Your task to perform on an android device: turn notification dots on Image 0: 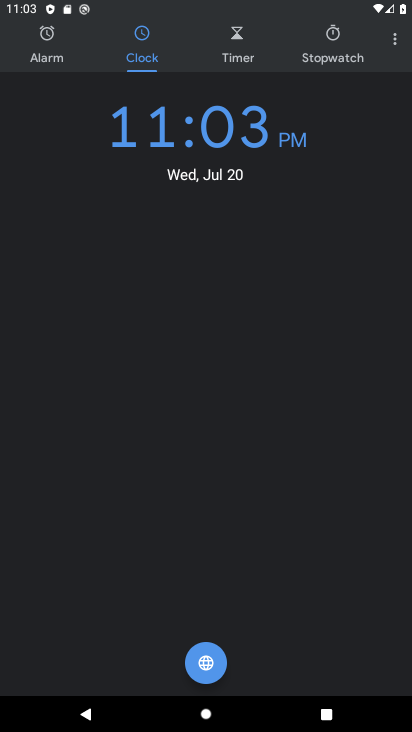
Step 0: press home button
Your task to perform on an android device: turn notification dots on Image 1: 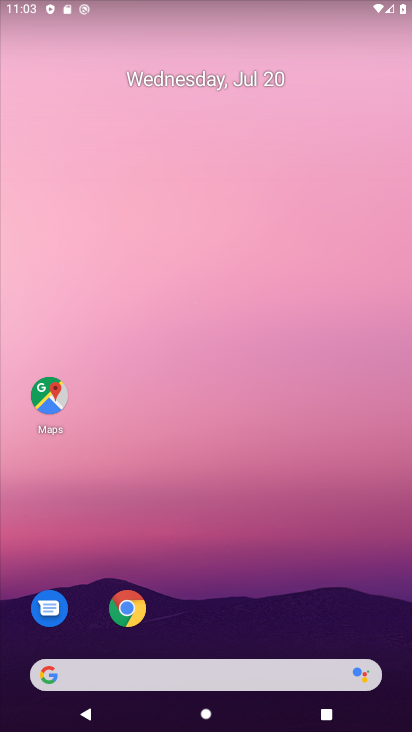
Step 1: drag from (316, 611) to (350, 106)
Your task to perform on an android device: turn notification dots on Image 2: 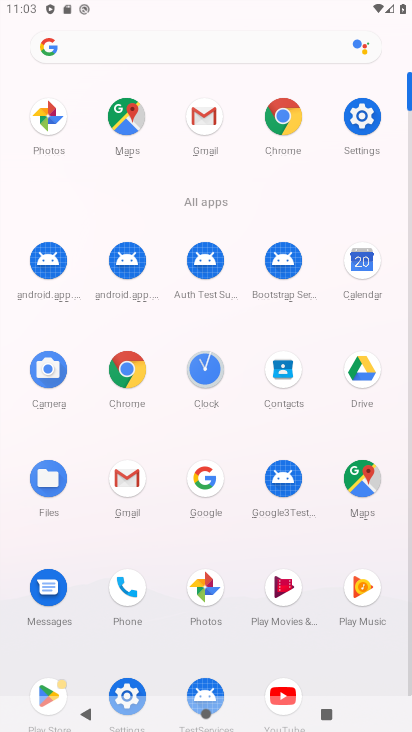
Step 2: click (364, 121)
Your task to perform on an android device: turn notification dots on Image 3: 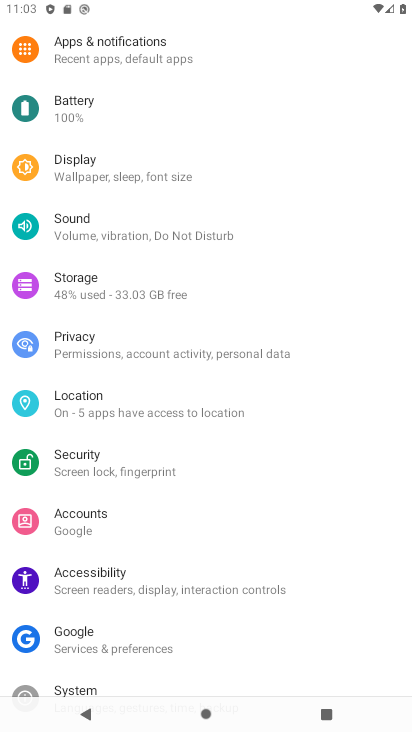
Step 3: drag from (356, 168) to (353, 383)
Your task to perform on an android device: turn notification dots on Image 4: 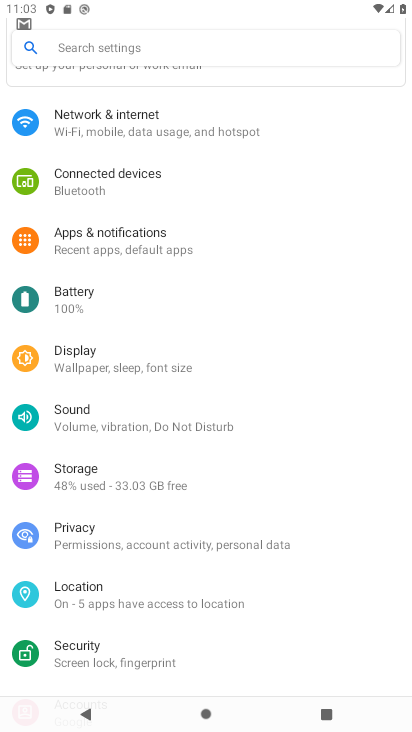
Step 4: drag from (346, 146) to (358, 358)
Your task to perform on an android device: turn notification dots on Image 5: 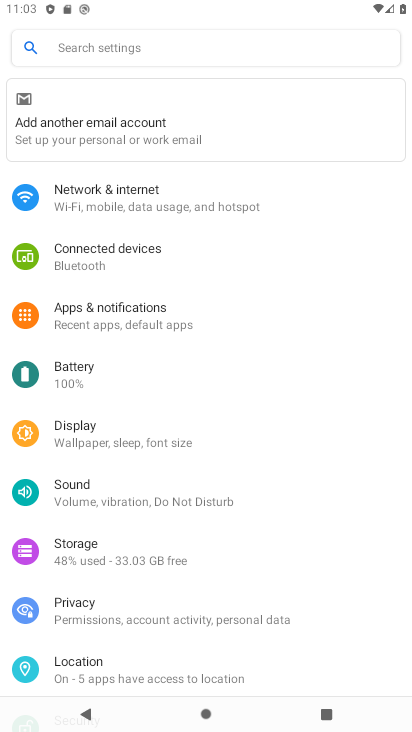
Step 5: drag from (319, 443) to (333, 338)
Your task to perform on an android device: turn notification dots on Image 6: 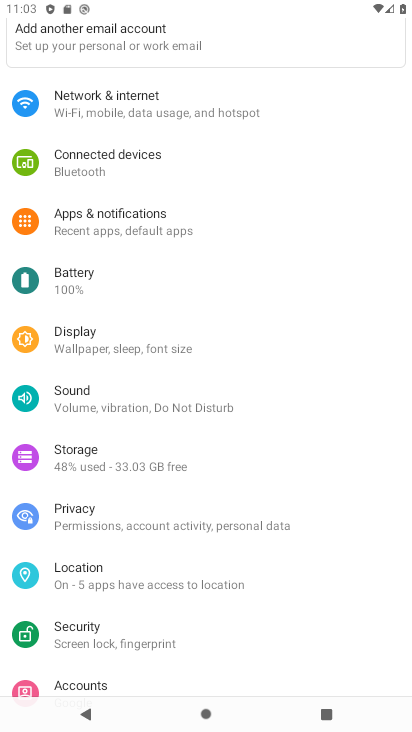
Step 6: drag from (335, 457) to (318, 344)
Your task to perform on an android device: turn notification dots on Image 7: 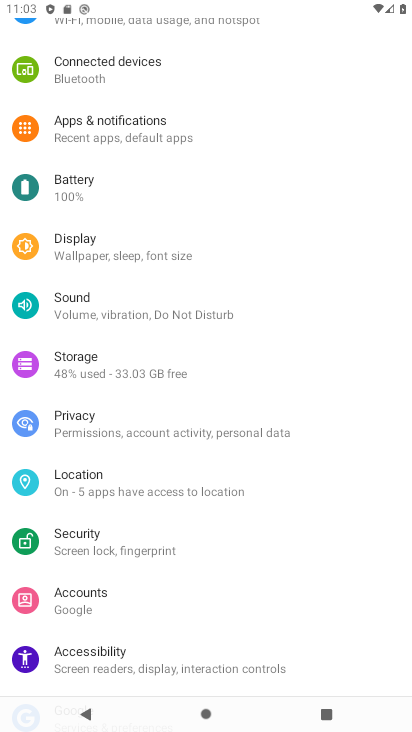
Step 7: drag from (328, 508) to (329, 362)
Your task to perform on an android device: turn notification dots on Image 8: 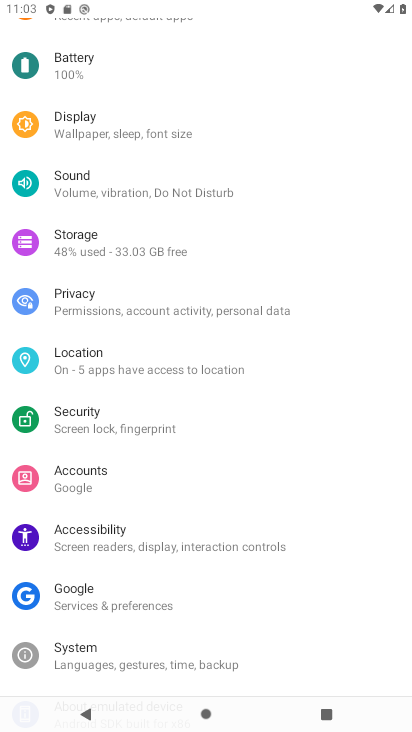
Step 8: drag from (339, 473) to (357, 330)
Your task to perform on an android device: turn notification dots on Image 9: 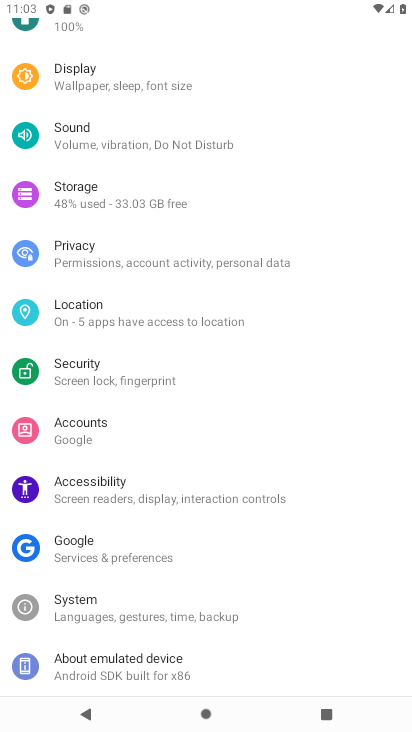
Step 9: drag from (353, 252) to (353, 353)
Your task to perform on an android device: turn notification dots on Image 10: 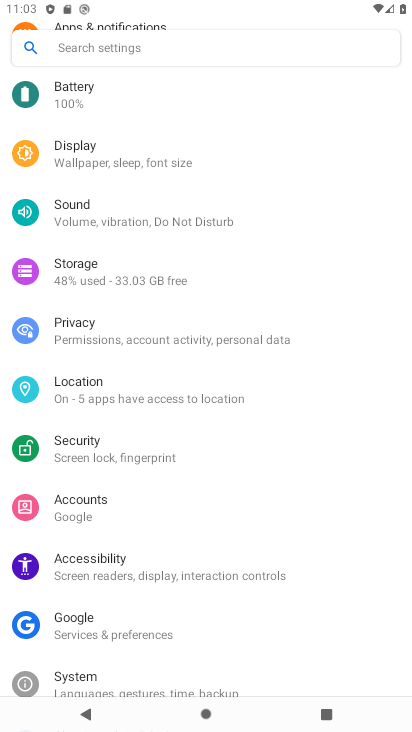
Step 10: drag from (352, 245) to (353, 362)
Your task to perform on an android device: turn notification dots on Image 11: 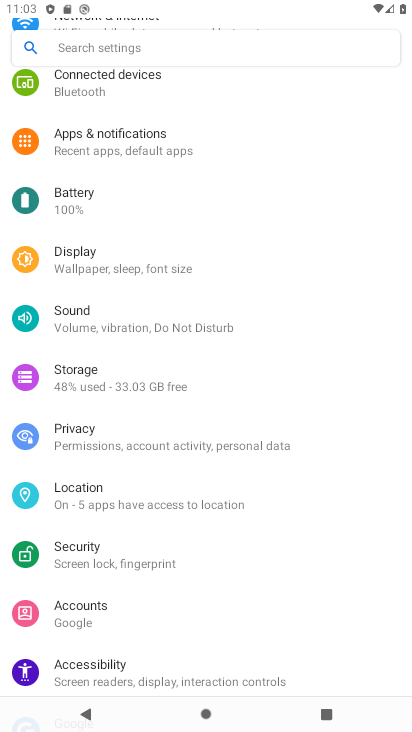
Step 11: drag from (340, 190) to (336, 397)
Your task to perform on an android device: turn notification dots on Image 12: 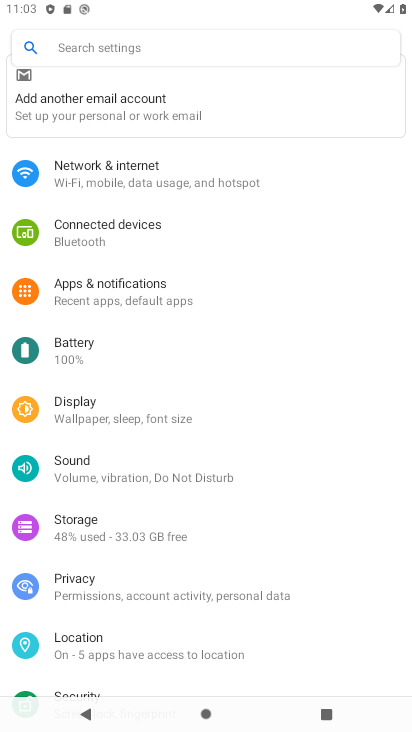
Step 12: click (210, 296)
Your task to perform on an android device: turn notification dots on Image 13: 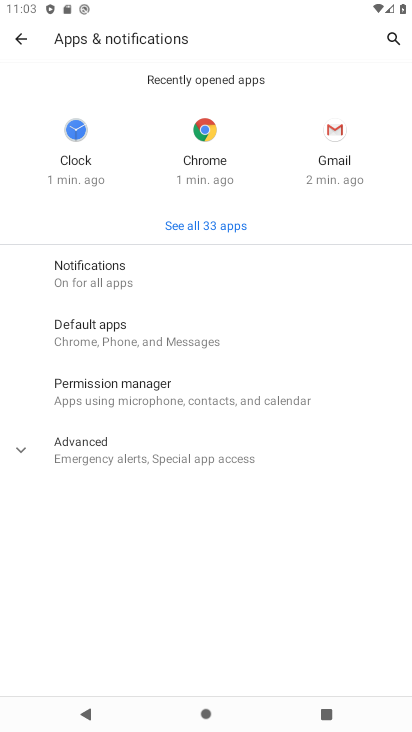
Step 13: click (127, 274)
Your task to perform on an android device: turn notification dots on Image 14: 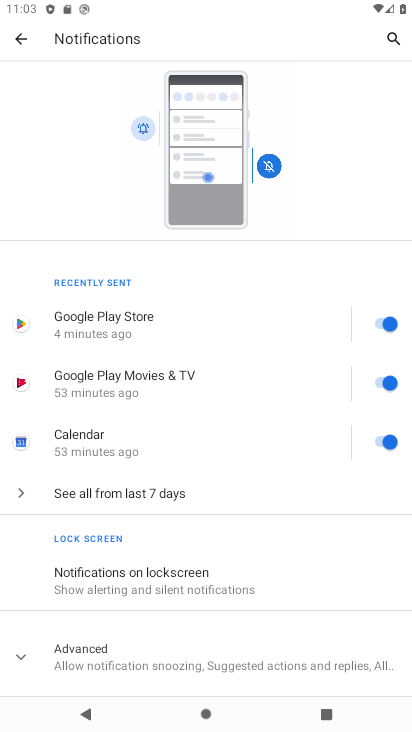
Step 14: drag from (288, 566) to (290, 441)
Your task to perform on an android device: turn notification dots on Image 15: 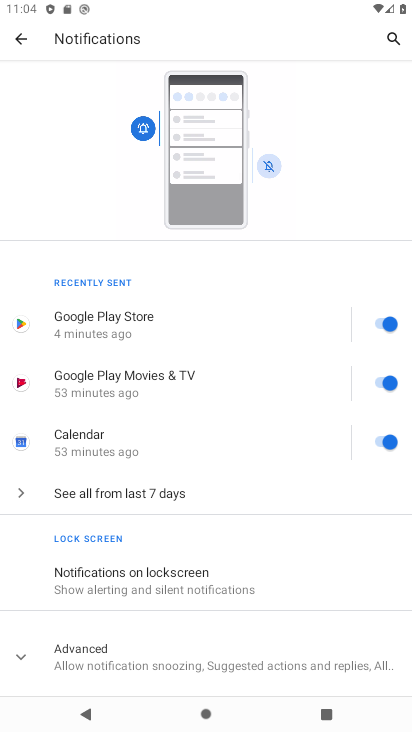
Step 15: click (302, 658)
Your task to perform on an android device: turn notification dots on Image 16: 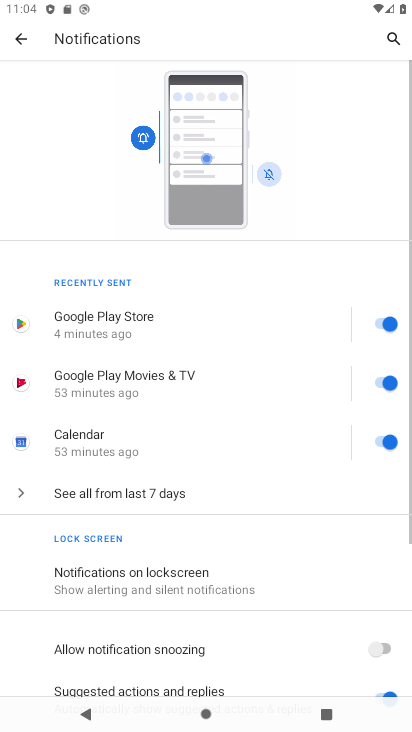
Step 16: task complete